Your task to perform on an android device: open app "Reddit" (install if not already installed) Image 0: 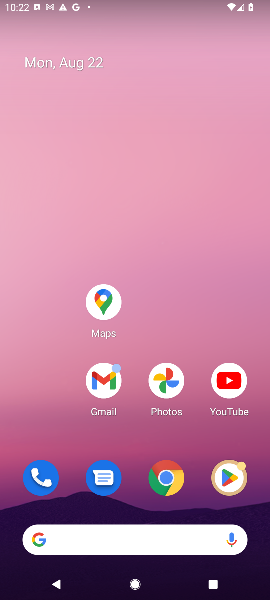
Step 0: click (222, 475)
Your task to perform on an android device: open app "Reddit" (install if not already installed) Image 1: 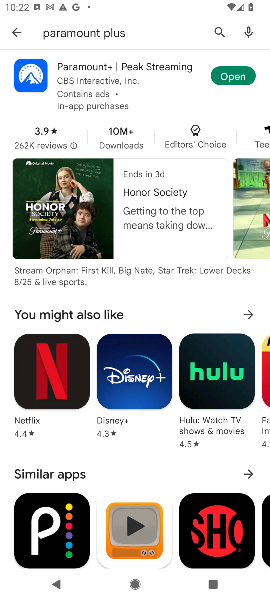
Step 1: click (221, 31)
Your task to perform on an android device: open app "Reddit" (install if not already installed) Image 2: 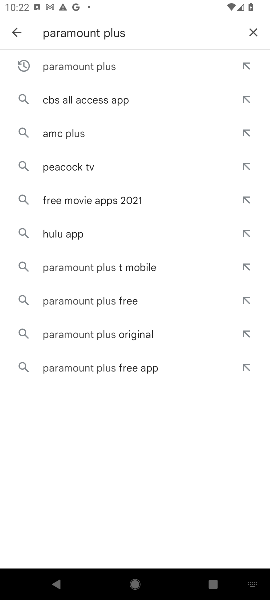
Step 2: click (248, 29)
Your task to perform on an android device: open app "Reddit" (install if not already installed) Image 3: 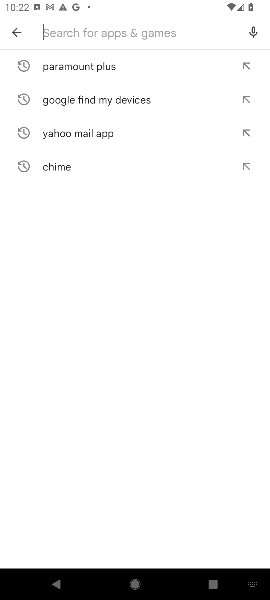
Step 3: type "reddit"
Your task to perform on an android device: open app "Reddit" (install if not already installed) Image 4: 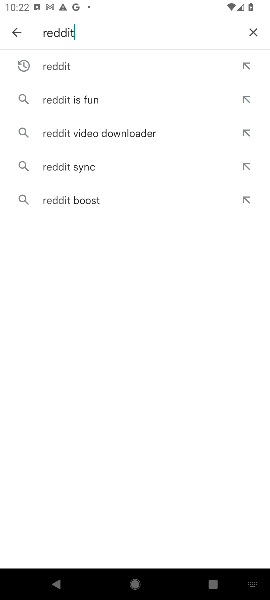
Step 4: click (68, 52)
Your task to perform on an android device: open app "Reddit" (install if not already installed) Image 5: 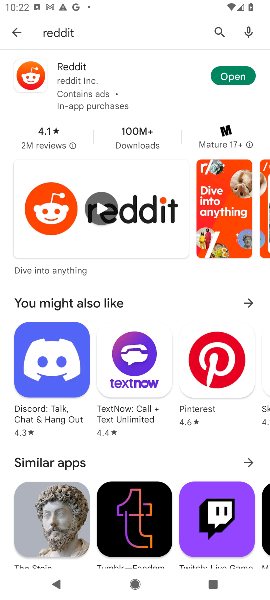
Step 5: click (227, 79)
Your task to perform on an android device: open app "Reddit" (install if not already installed) Image 6: 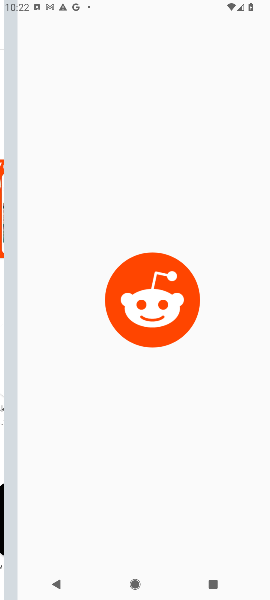
Step 6: task complete